Your task to perform on an android device: toggle translation in the chrome app Image 0: 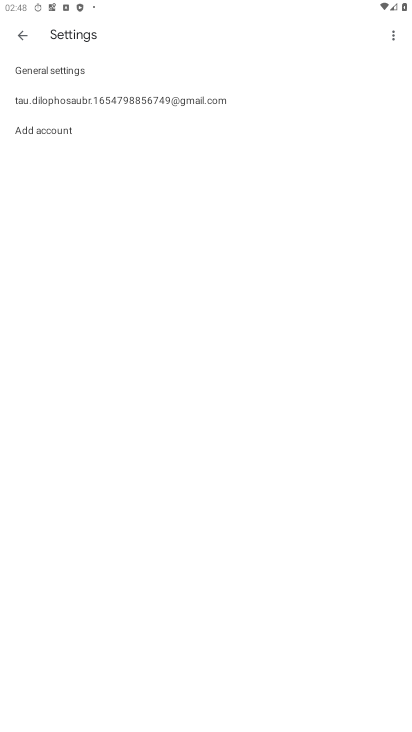
Step 0: press home button
Your task to perform on an android device: toggle translation in the chrome app Image 1: 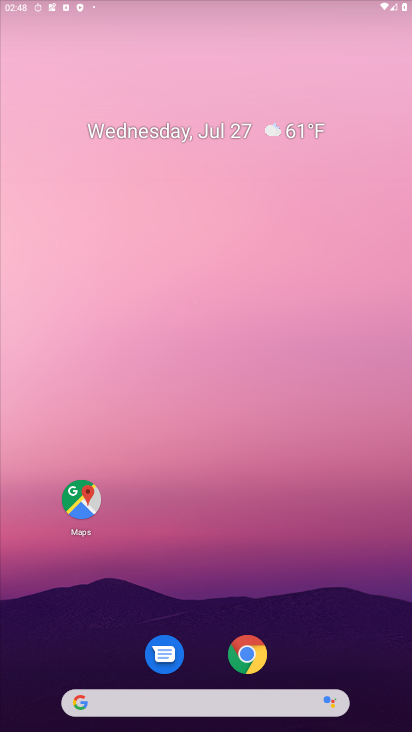
Step 1: drag from (287, 648) to (379, 4)
Your task to perform on an android device: toggle translation in the chrome app Image 2: 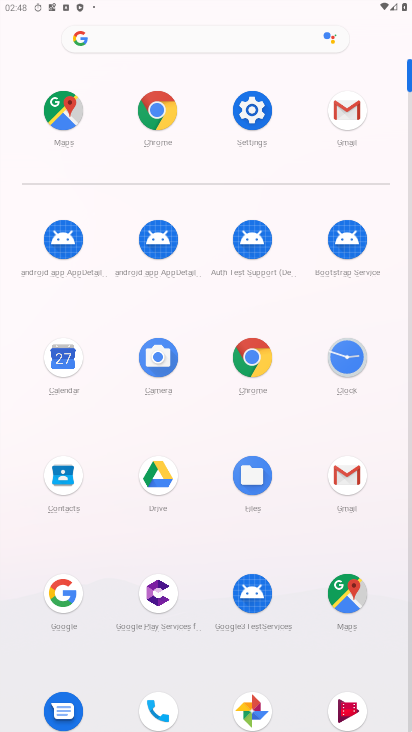
Step 2: click (254, 389)
Your task to perform on an android device: toggle translation in the chrome app Image 3: 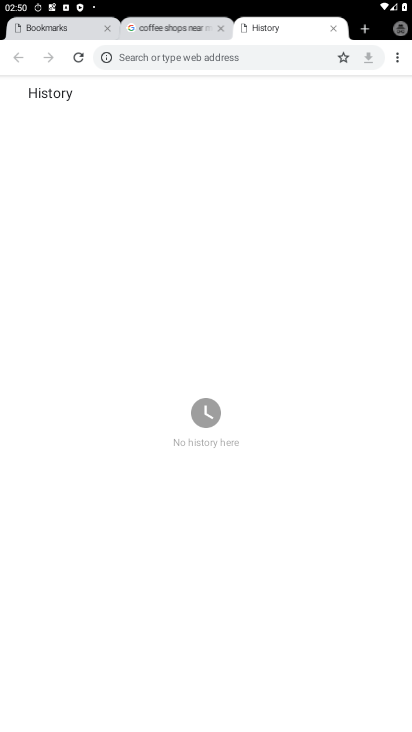
Step 3: press home button
Your task to perform on an android device: toggle translation in the chrome app Image 4: 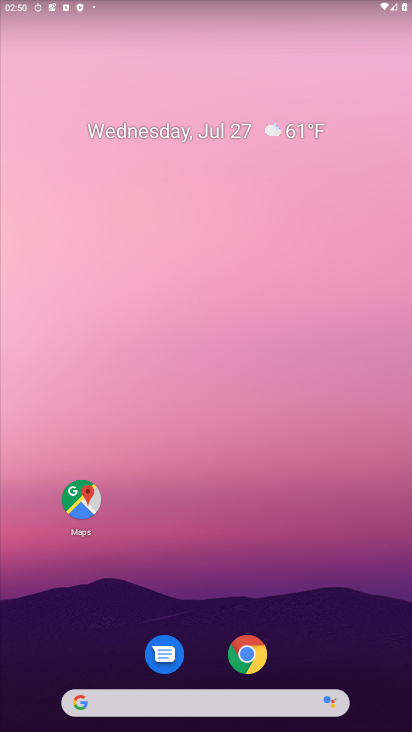
Step 4: drag from (207, 702) to (254, 449)
Your task to perform on an android device: toggle translation in the chrome app Image 5: 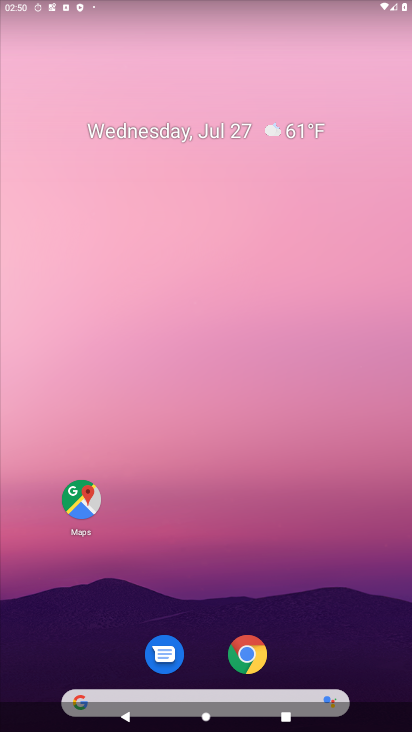
Step 5: drag from (230, 637) to (254, 33)
Your task to perform on an android device: toggle translation in the chrome app Image 6: 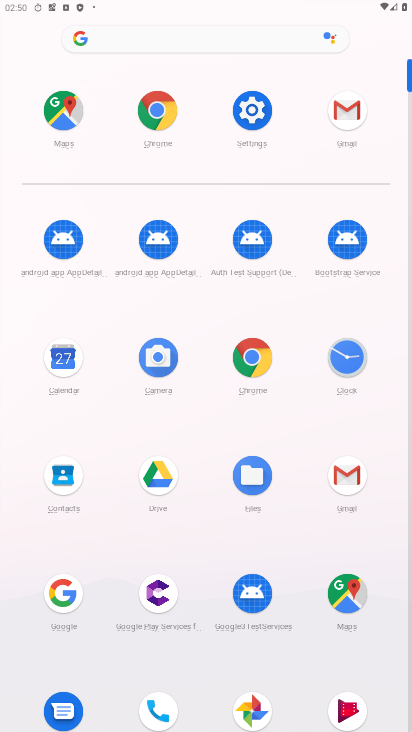
Step 6: click (240, 367)
Your task to perform on an android device: toggle translation in the chrome app Image 7: 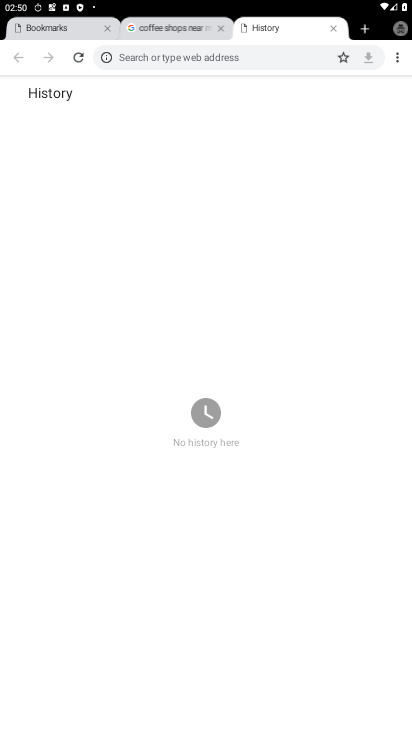
Step 7: click (386, 58)
Your task to perform on an android device: toggle translation in the chrome app Image 8: 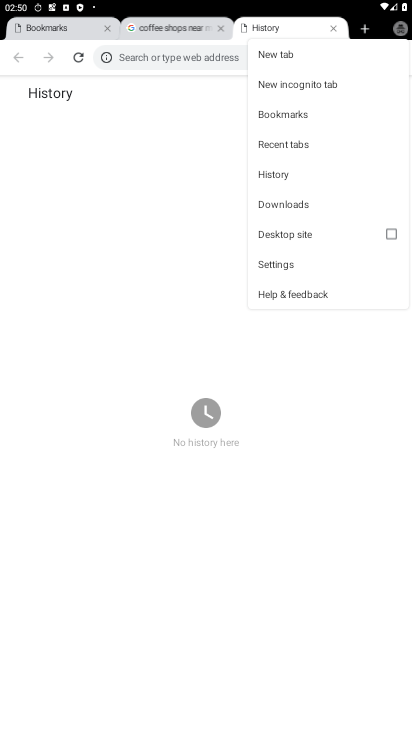
Step 8: click (283, 260)
Your task to perform on an android device: toggle translation in the chrome app Image 9: 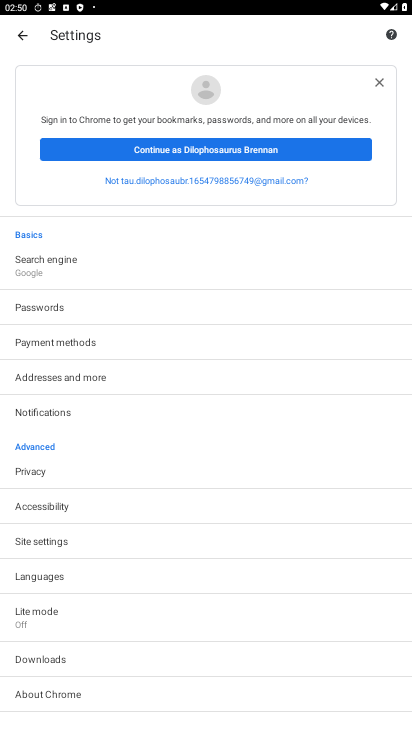
Step 9: click (84, 588)
Your task to perform on an android device: toggle translation in the chrome app Image 10: 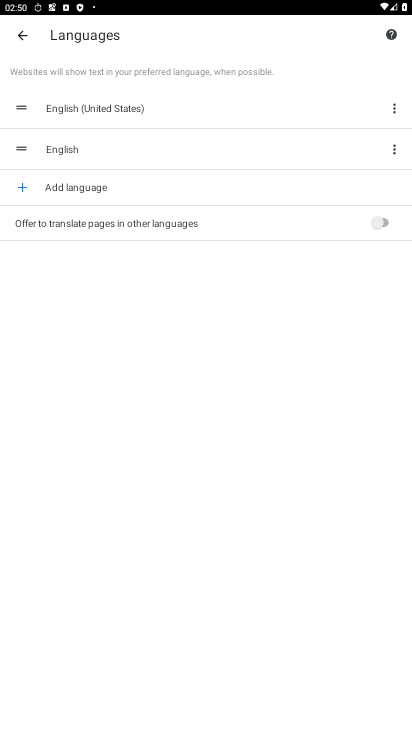
Step 10: click (391, 216)
Your task to perform on an android device: toggle translation in the chrome app Image 11: 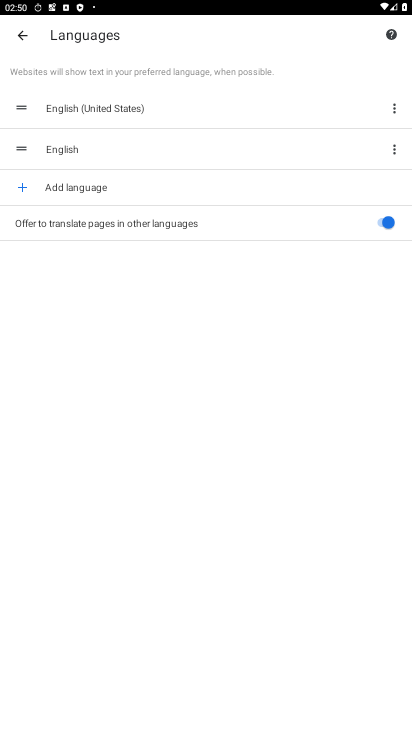
Step 11: task complete